Your task to perform on an android device: Open Youtube and go to "Your channel" Image 0: 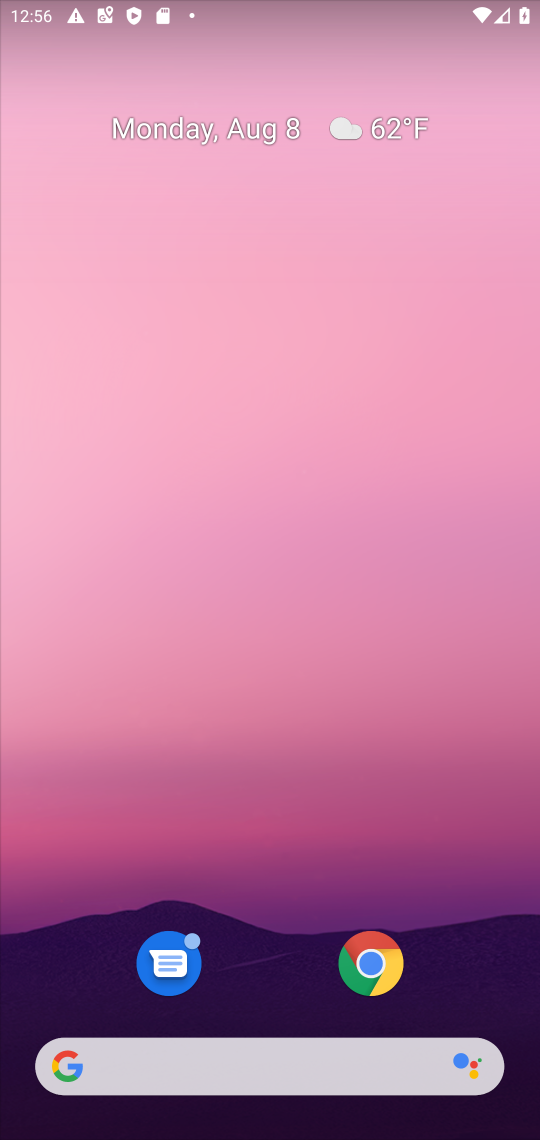
Step 0: drag from (509, 914) to (271, 21)
Your task to perform on an android device: Open Youtube and go to "Your channel" Image 1: 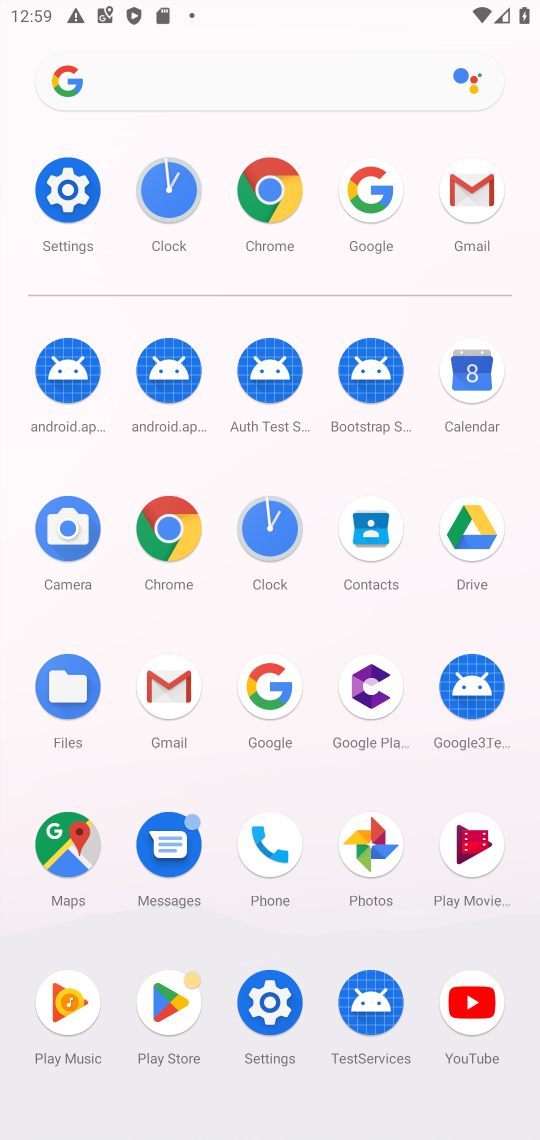
Step 1: click (447, 1006)
Your task to perform on an android device: Open Youtube and go to "Your channel" Image 2: 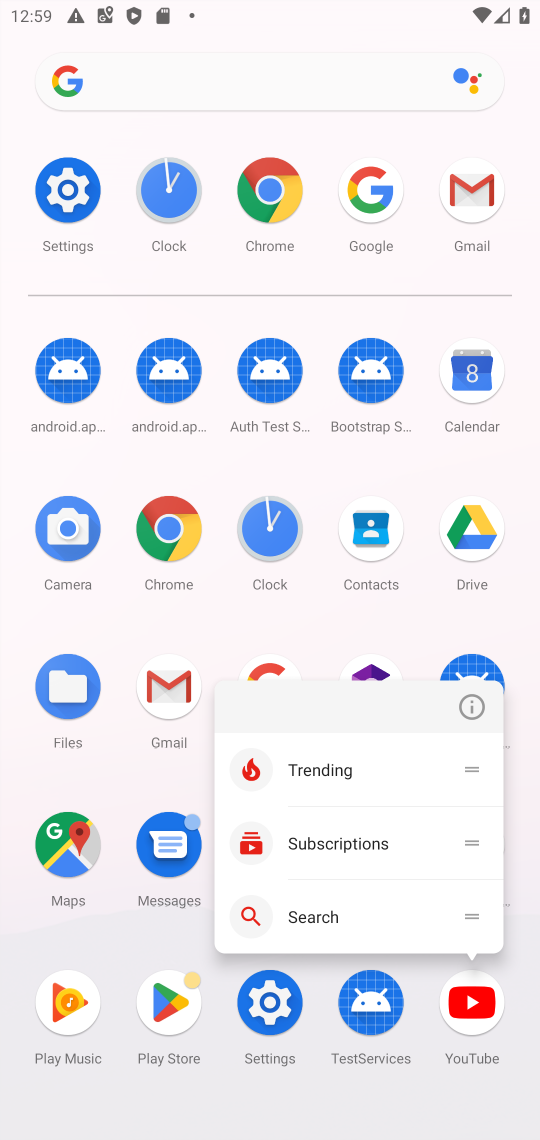
Step 2: click (462, 1004)
Your task to perform on an android device: Open Youtube and go to "Your channel" Image 3: 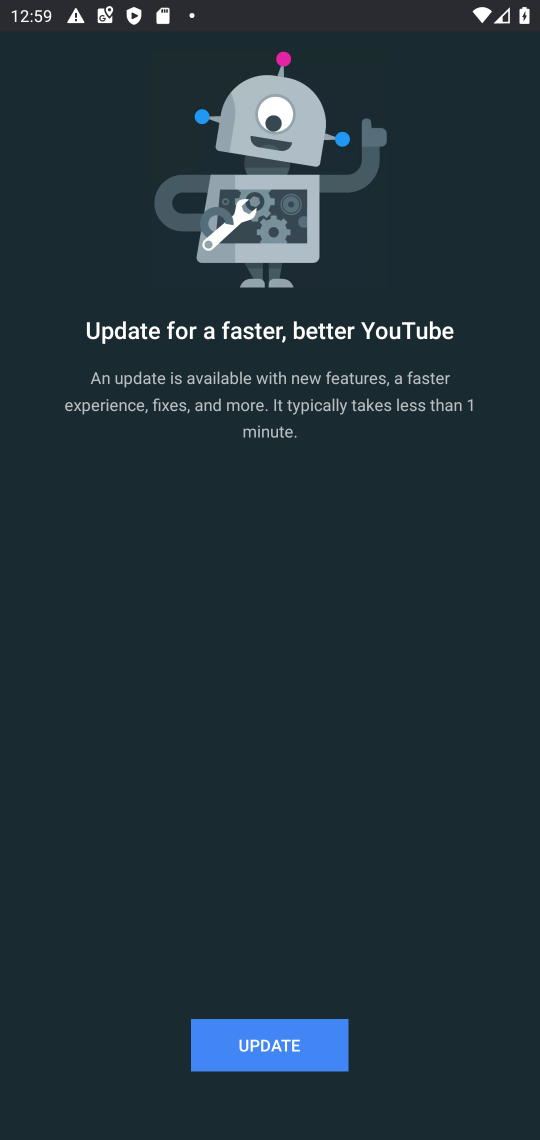
Step 3: task complete